Your task to perform on an android device: Go to location settings Image 0: 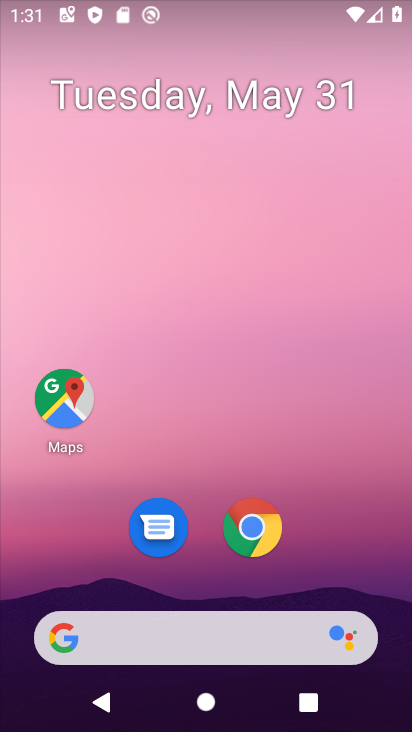
Step 0: drag from (349, 554) to (331, 150)
Your task to perform on an android device: Go to location settings Image 1: 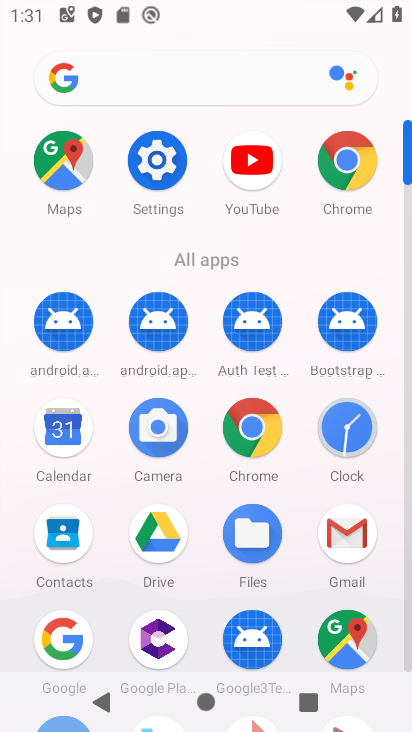
Step 1: click (141, 164)
Your task to perform on an android device: Go to location settings Image 2: 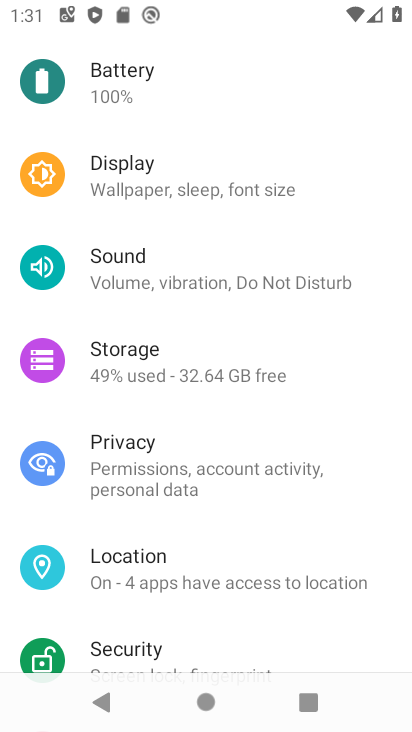
Step 2: click (203, 566)
Your task to perform on an android device: Go to location settings Image 3: 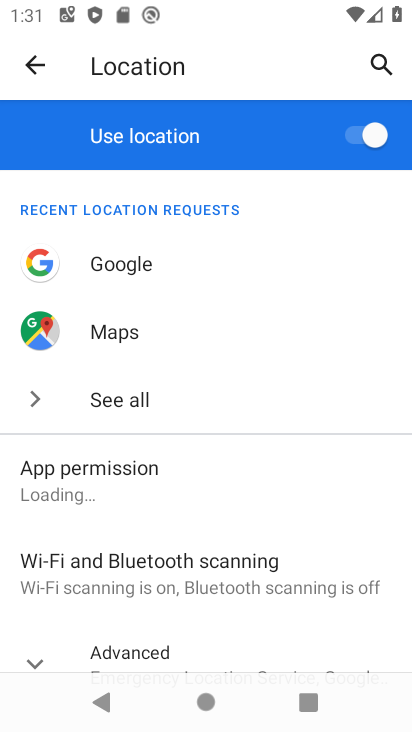
Step 3: task complete